Your task to perform on an android device: toggle translation in the chrome app Image 0: 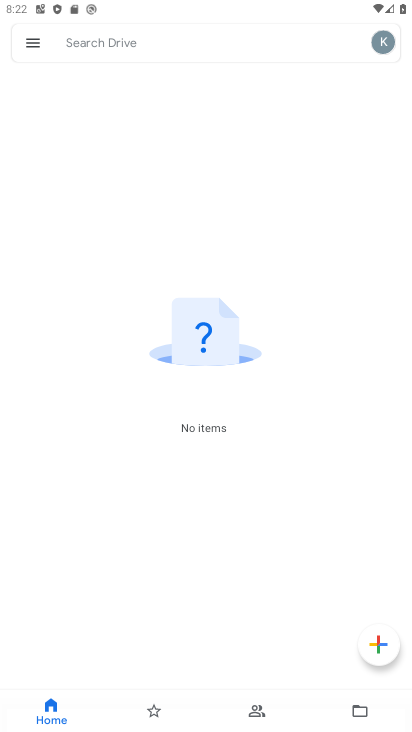
Step 0: press home button
Your task to perform on an android device: toggle translation in the chrome app Image 1: 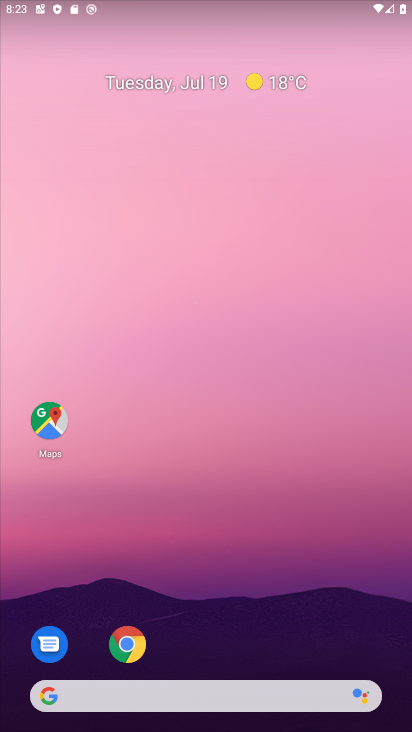
Step 1: drag from (221, 729) to (250, 159)
Your task to perform on an android device: toggle translation in the chrome app Image 2: 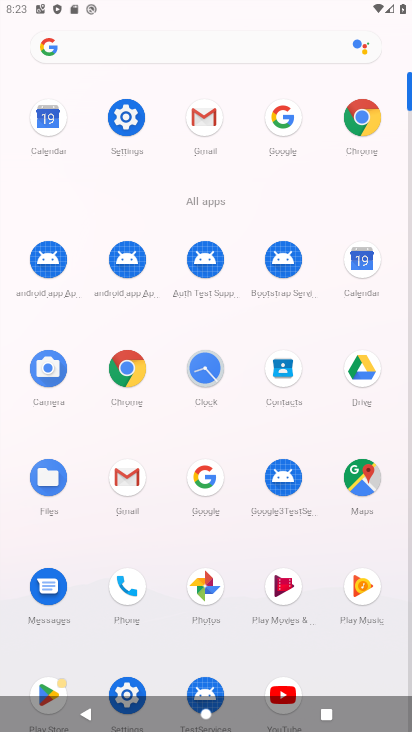
Step 2: click (129, 369)
Your task to perform on an android device: toggle translation in the chrome app Image 3: 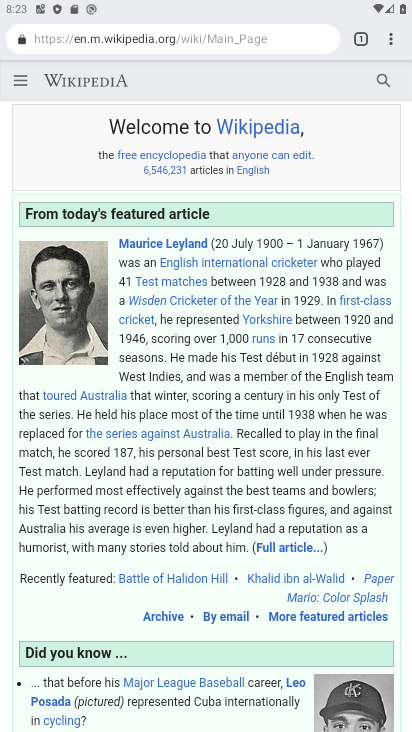
Step 3: click (390, 42)
Your task to perform on an android device: toggle translation in the chrome app Image 4: 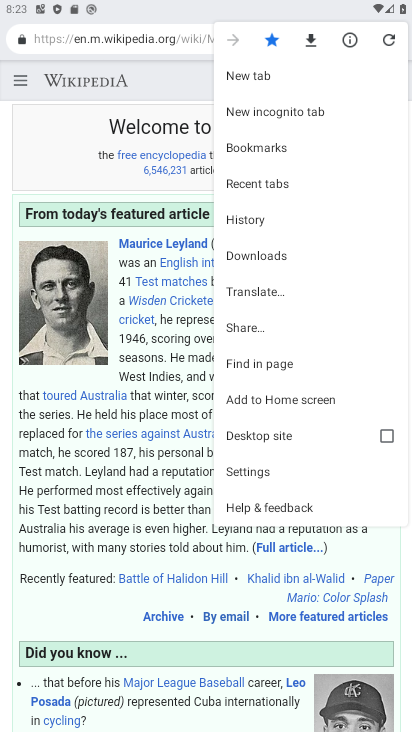
Step 4: click (246, 470)
Your task to perform on an android device: toggle translation in the chrome app Image 5: 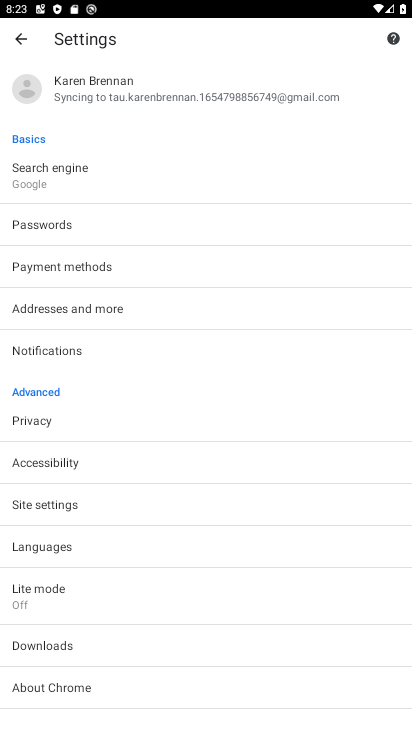
Step 5: click (53, 545)
Your task to perform on an android device: toggle translation in the chrome app Image 6: 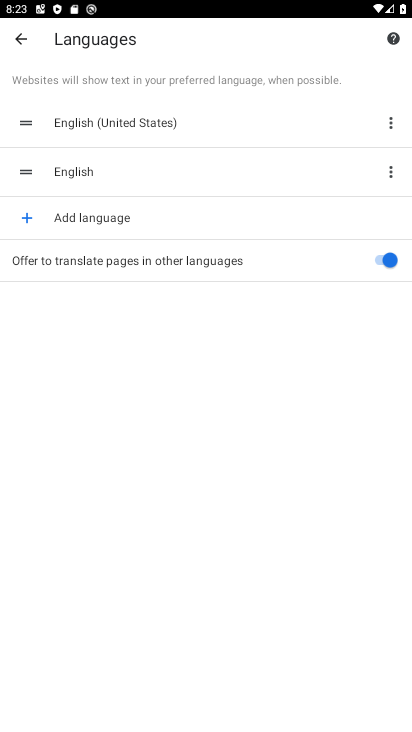
Step 6: click (388, 257)
Your task to perform on an android device: toggle translation in the chrome app Image 7: 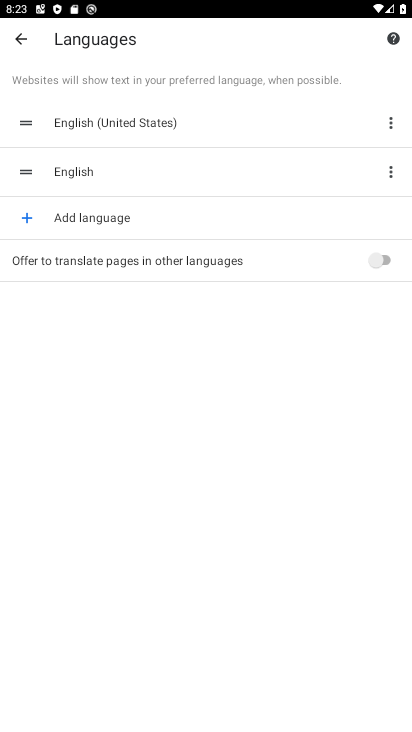
Step 7: task complete